Your task to perform on an android device: change timer sound Image 0: 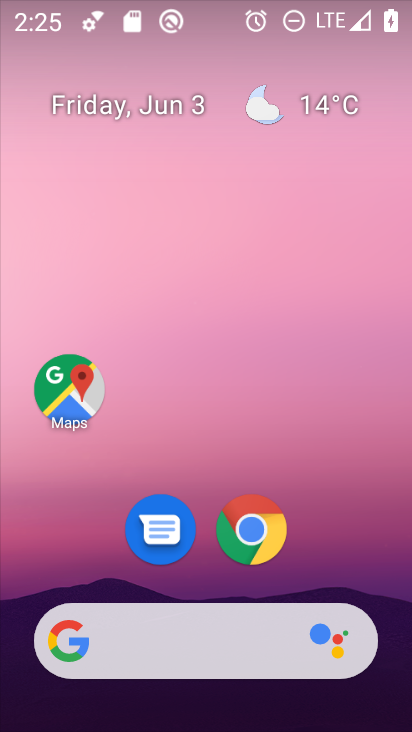
Step 0: drag from (362, 565) to (338, 207)
Your task to perform on an android device: change timer sound Image 1: 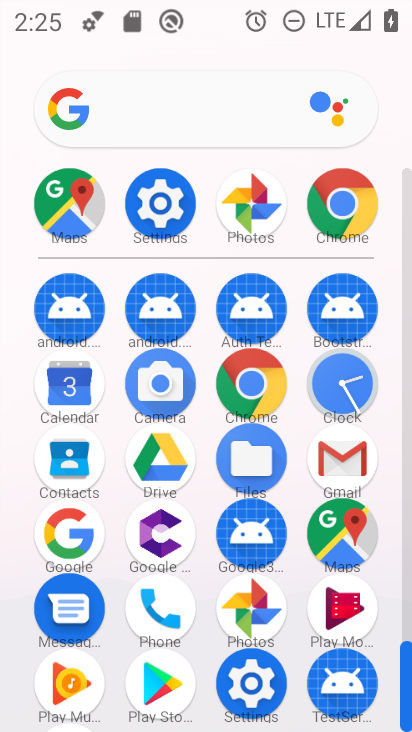
Step 1: click (340, 388)
Your task to perform on an android device: change timer sound Image 2: 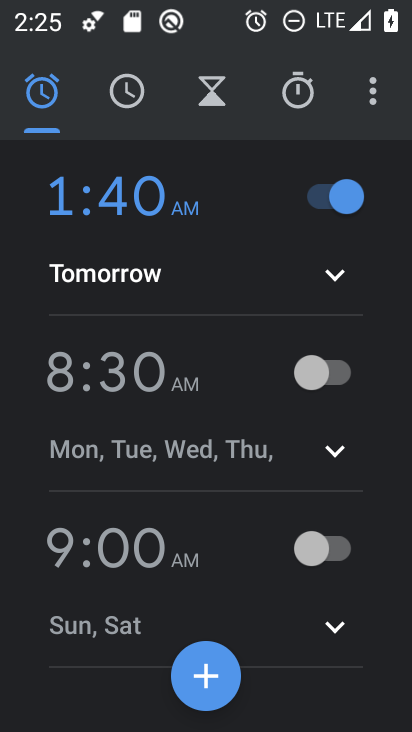
Step 2: click (372, 109)
Your task to perform on an android device: change timer sound Image 3: 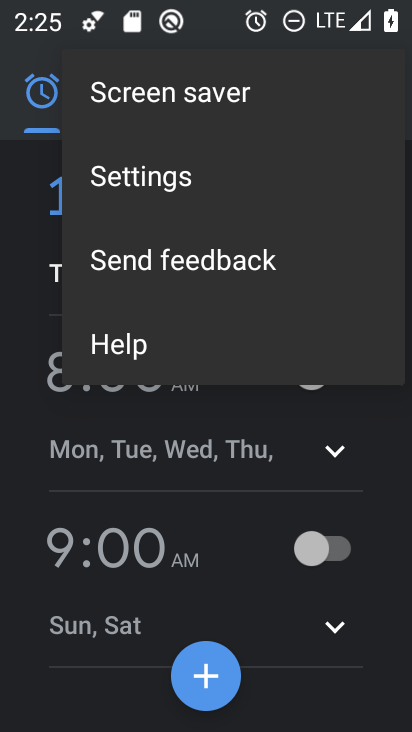
Step 3: click (230, 190)
Your task to perform on an android device: change timer sound Image 4: 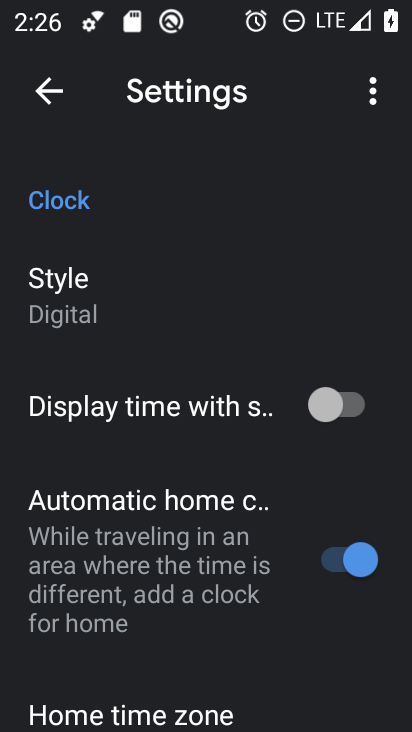
Step 4: drag from (273, 520) to (277, 325)
Your task to perform on an android device: change timer sound Image 5: 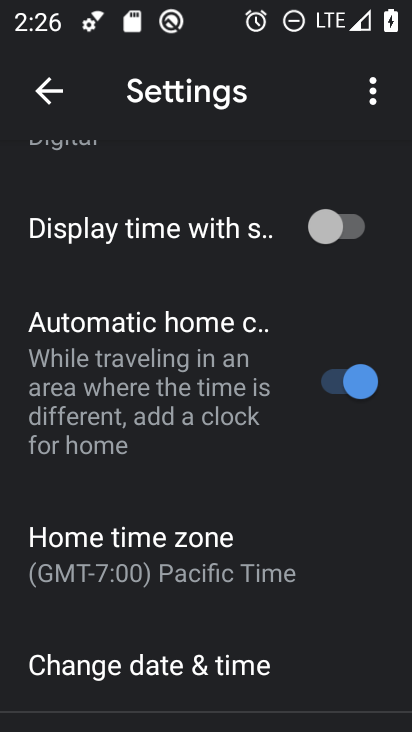
Step 5: drag from (284, 515) to (257, 320)
Your task to perform on an android device: change timer sound Image 6: 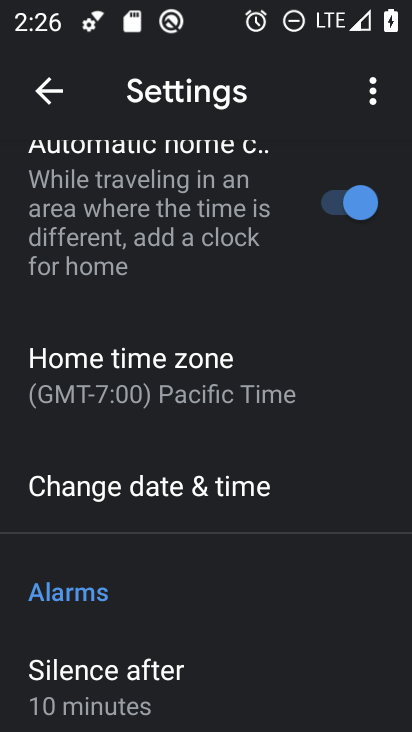
Step 6: drag from (307, 498) to (305, 348)
Your task to perform on an android device: change timer sound Image 7: 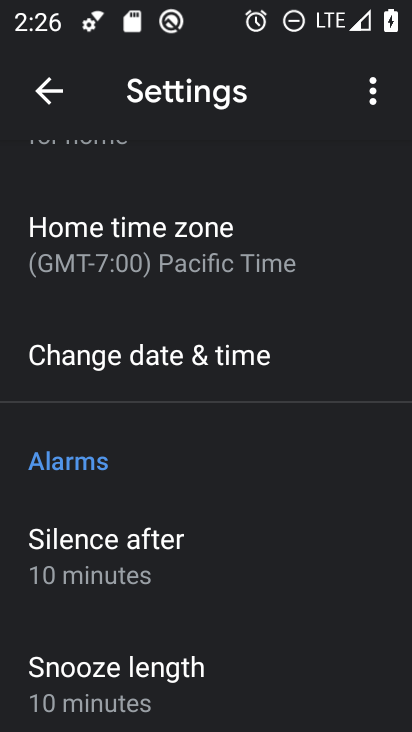
Step 7: drag from (263, 516) to (253, 345)
Your task to perform on an android device: change timer sound Image 8: 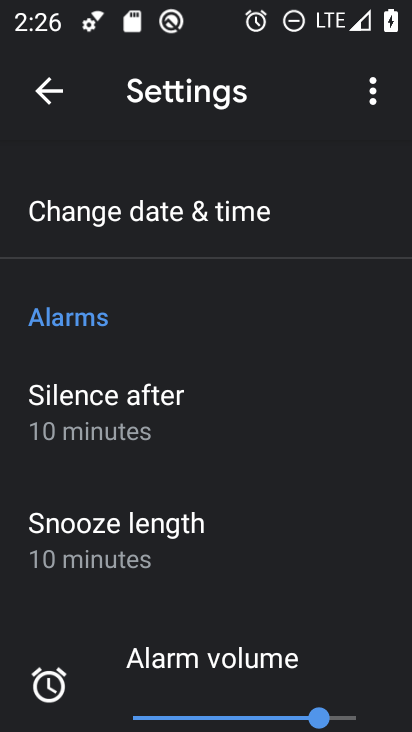
Step 8: drag from (279, 508) to (273, 402)
Your task to perform on an android device: change timer sound Image 9: 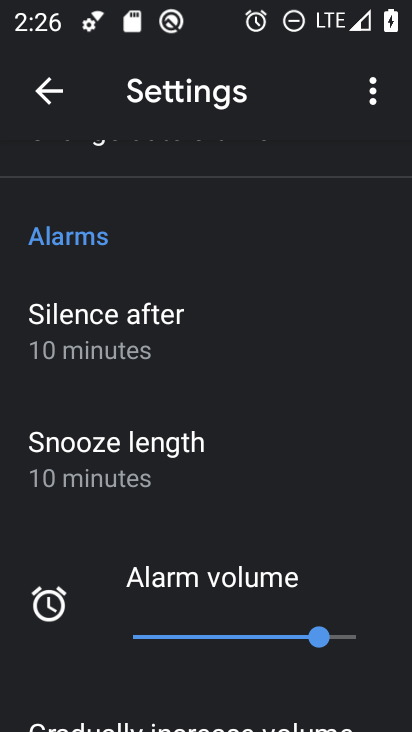
Step 9: drag from (297, 566) to (263, 385)
Your task to perform on an android device: change timer sound Image 10: 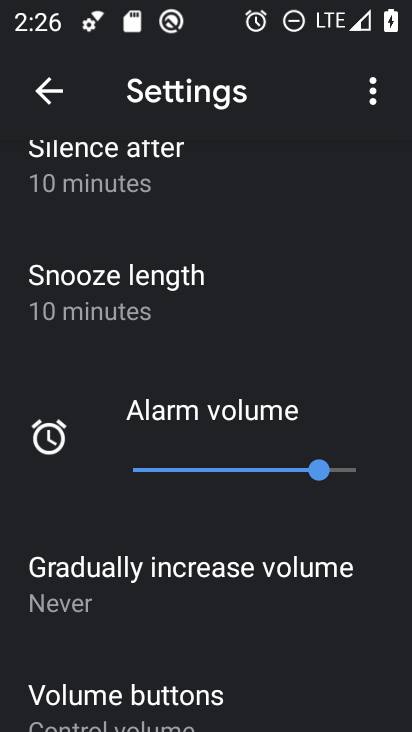
Step 10: drag from (369, 598) to (373, 451)
Your task to perform on an android device: change timer sound Image 11: 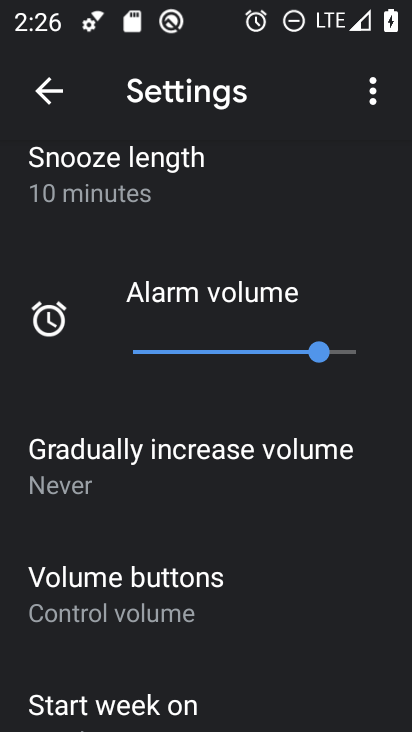
Step 11: drag from (302, 558) to (305, 454)
Your task to perform on an android device: change timer sound Image 12: 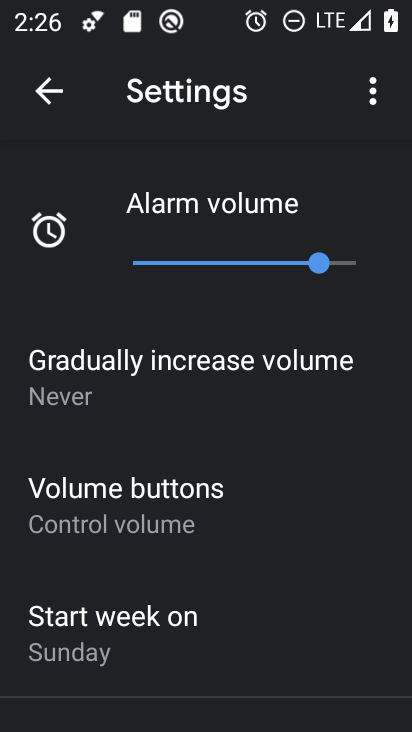
Step 12: drag from (315, 551) to (322, 298)
Your task to perform on an android device: change timer sound Image 13: 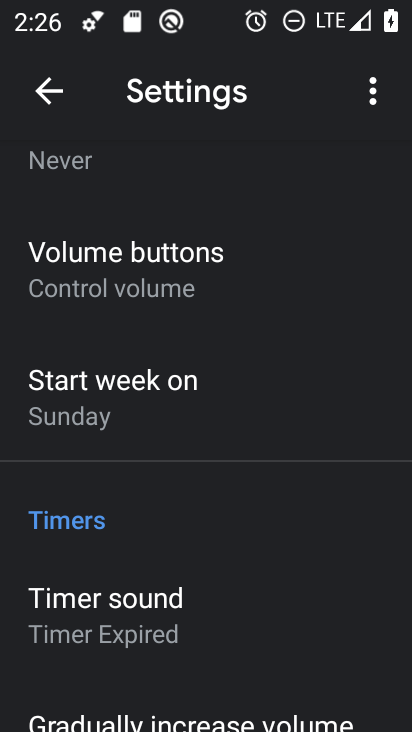
Step 13: click (207, 628)
Your task to perform on an android device: change timer sound Image 14: 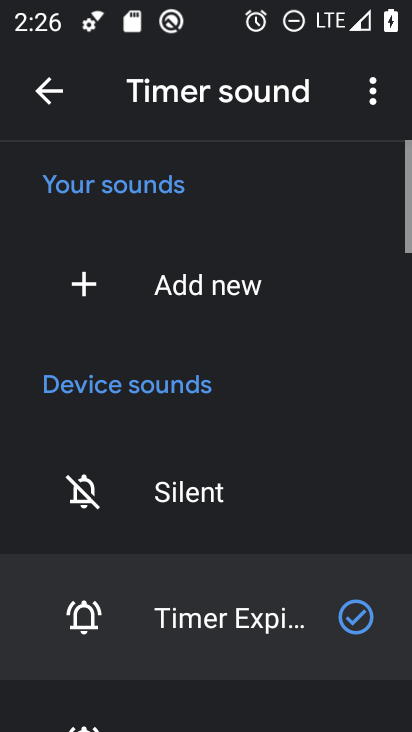
Step 14: click (203, 508)
Your task to perform on an android device: change timer sound Image 15: 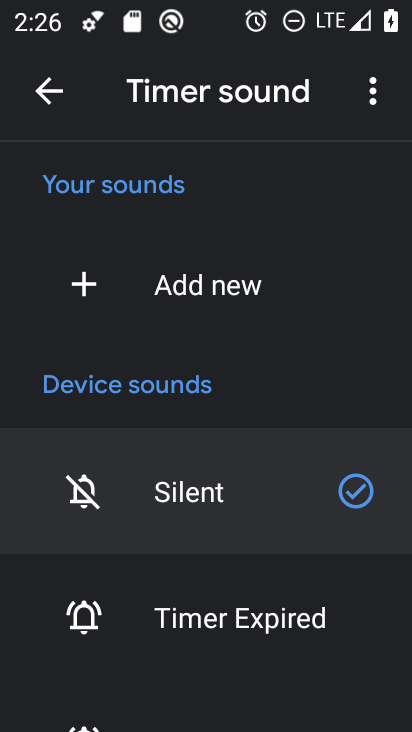
Step 15: task complete